Your task to perform on an android device: What's the news in Sri Lanka? Image 0: 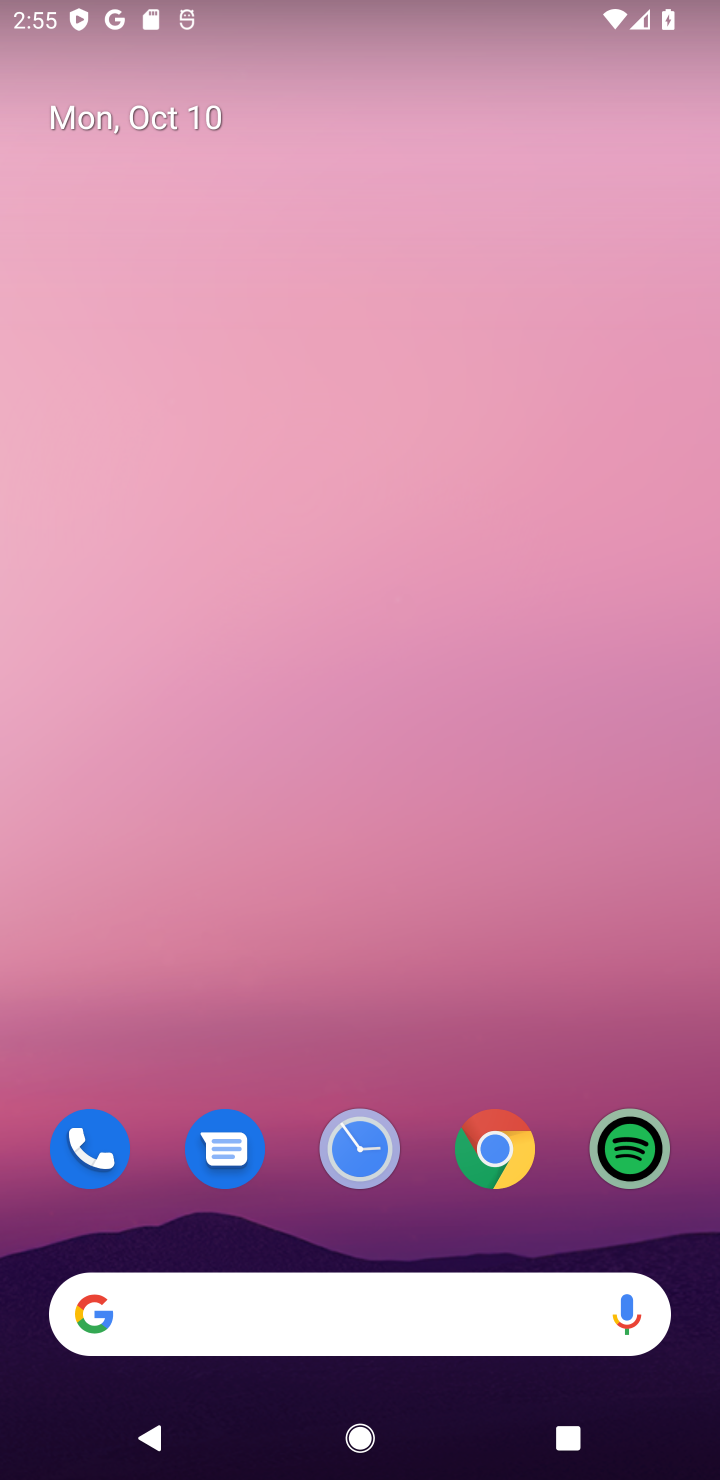
Step 0: drag from (530, 1477) to (581, 1350)
Your task to perform on an android device: What's the news in Sri Lanka? Image 1: 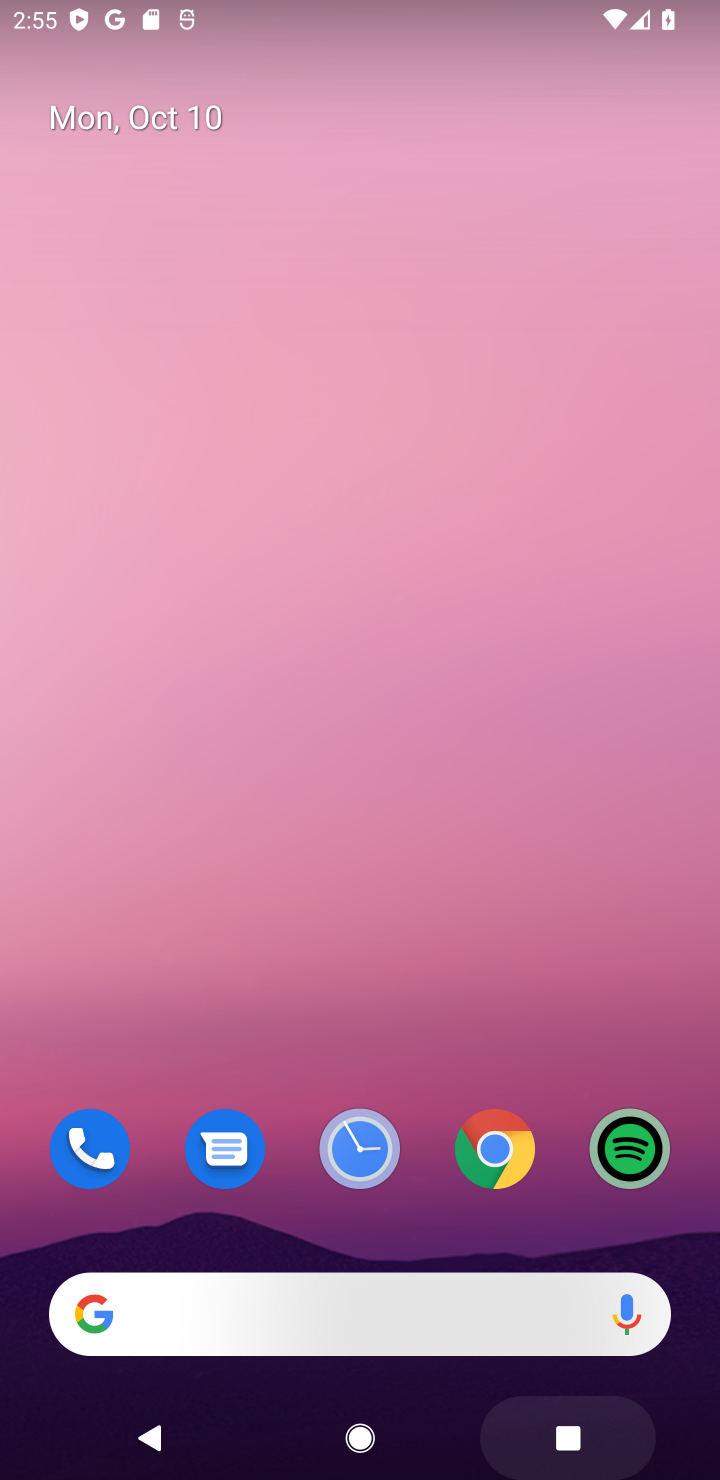
Step 1: click (397, 1304)
Your task to perform on an android device: What's the news in Sri Lanka? Image 2: 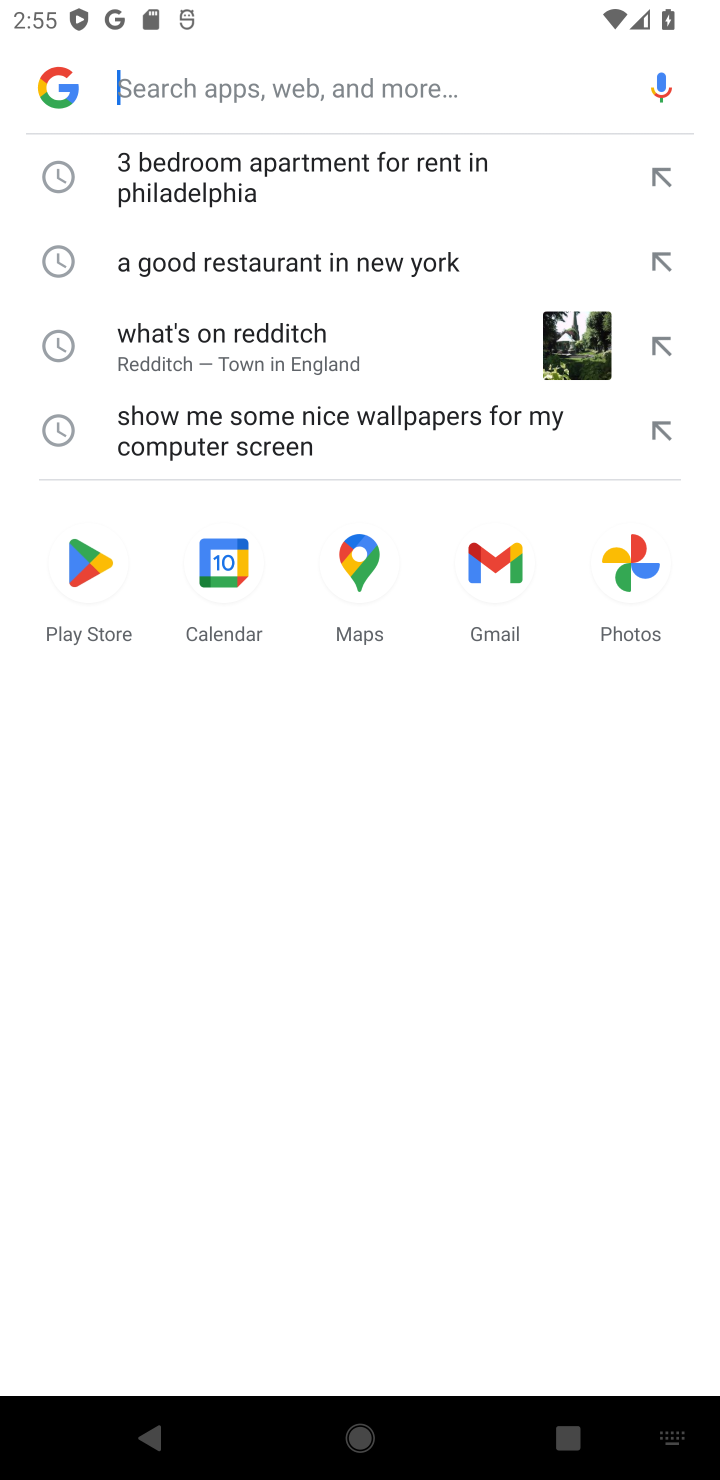
Step 2: type "news in Sri Lanka"
Your task to perform on an android device: What's the news in Sri Lanka? Image 3: 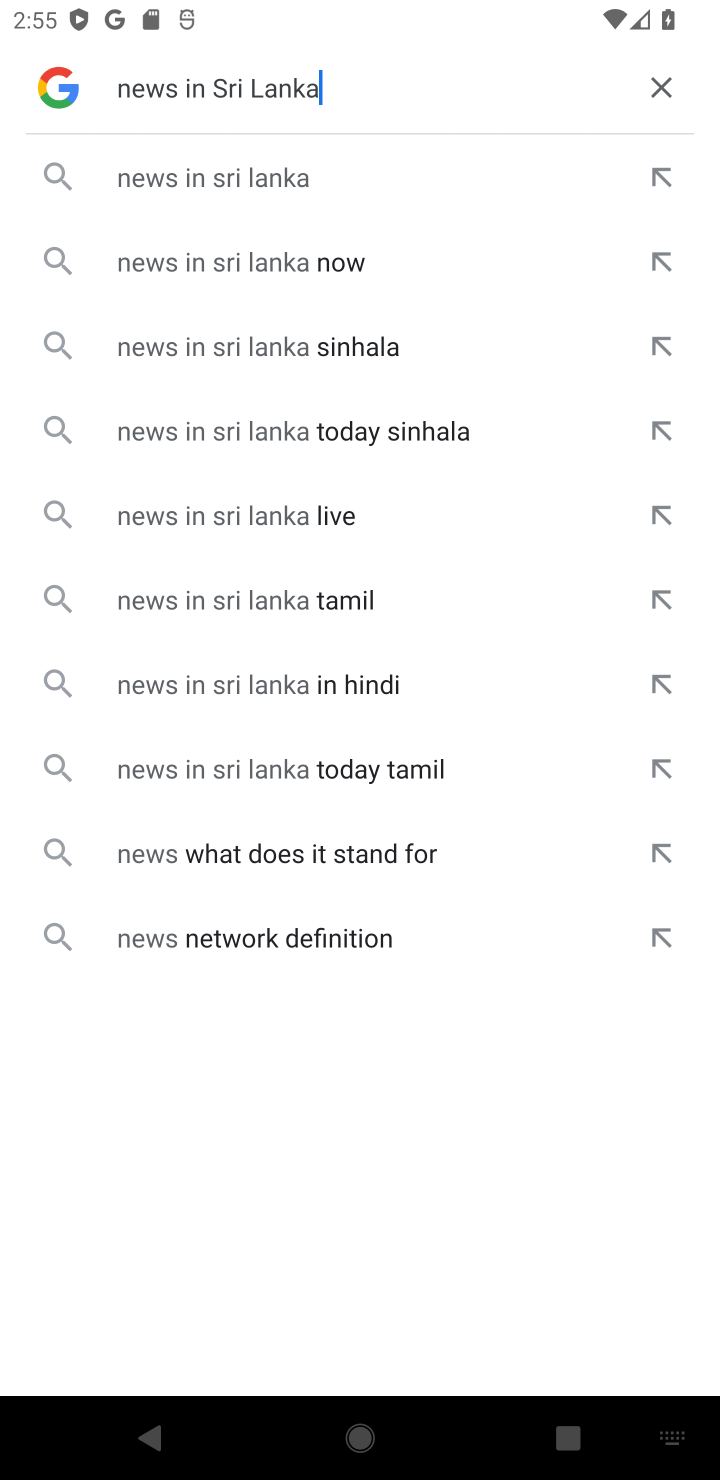
Step 3: click (361, 178)
Your task to perform on an android device: What's the news in Sri Lanka? Image 4: 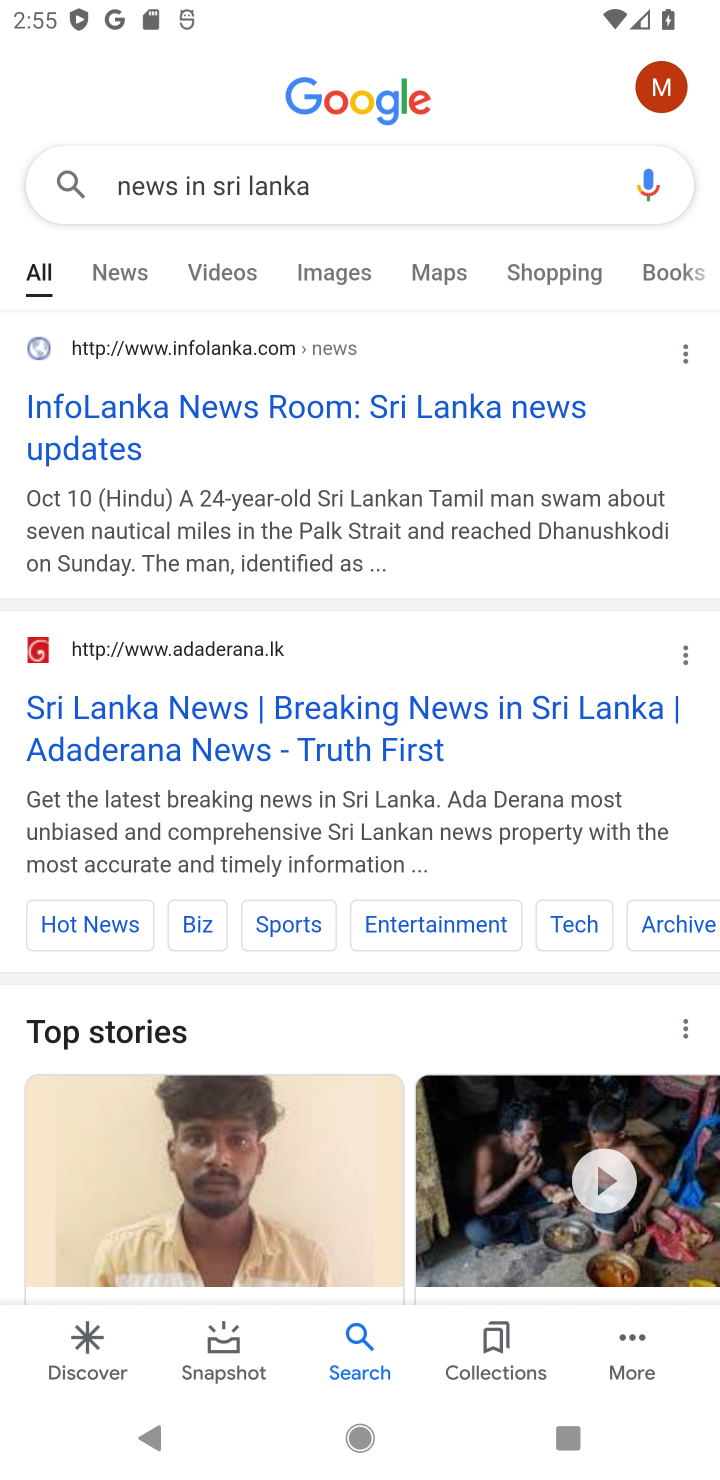
Step 4: task complete